Your task to perform on an android device: turn off smart reply in the gmail app Image 0: 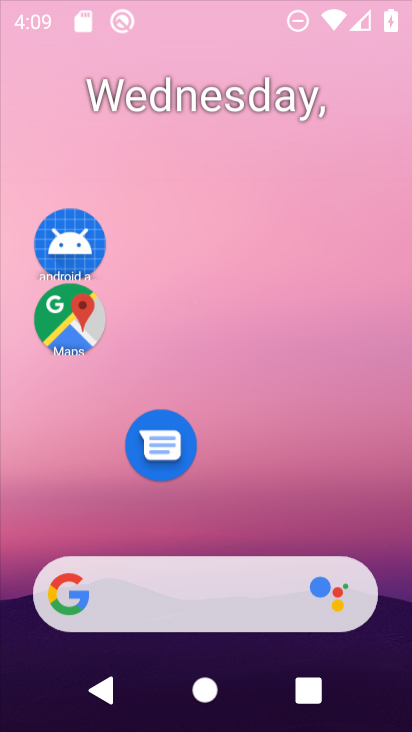
Step 0: click (256, 92)
Your task to perform on an android device: turn off smart reply in the gmail app Image 1: 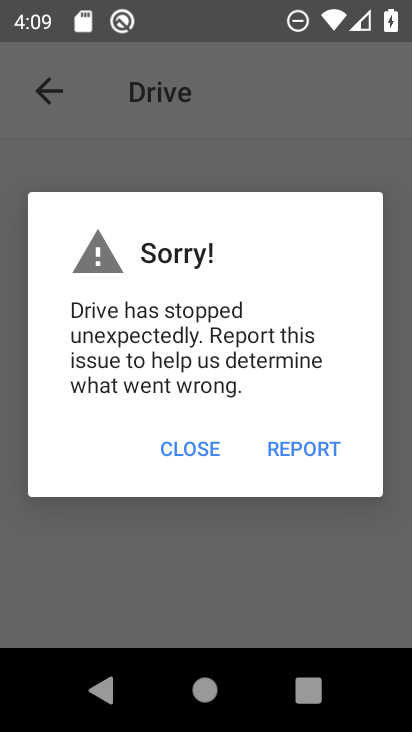
Step 1: drag from (257, 451) to (296, 258)
Your task to perform on an android device: turn off smart reply in the gmail app Image 2: 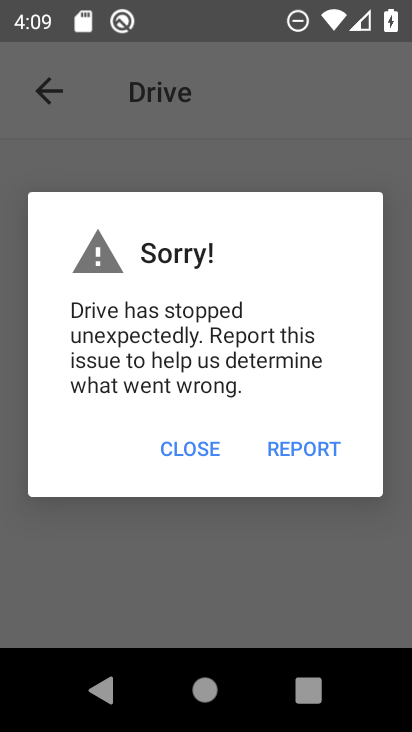
Step 2: press home button
Your task to perform on an android device: turn off smart reply in the gmail app Image 3: 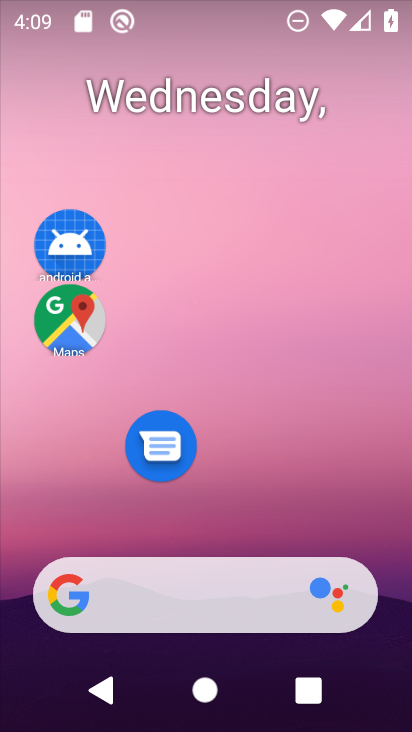
Step 3: drag from (307, 505) to (284, 128)
Your task to perform on an android device: turn off smart reply in the gmail app Image 4: 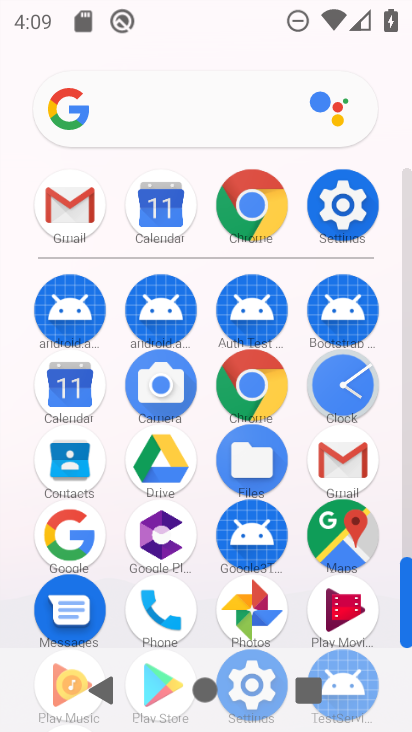
Step 4: click (83, 201)
Your task to perform on an android device: turn off smart reply in the gmail app Image 5: 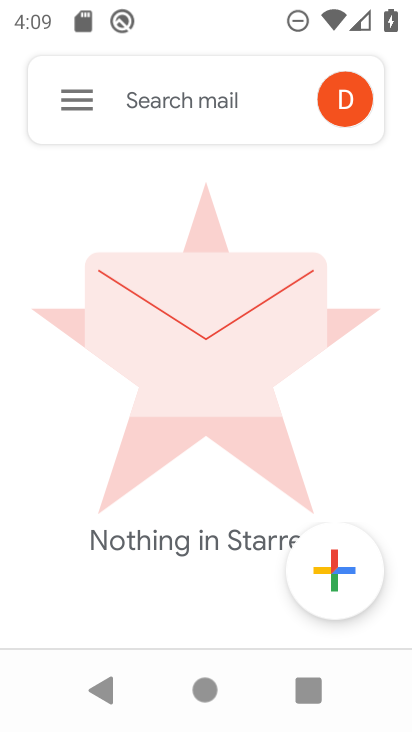
Step 5: click (78, 88)
Your task to perform on an android device: turn off smart reply in the gmail app Image 6: 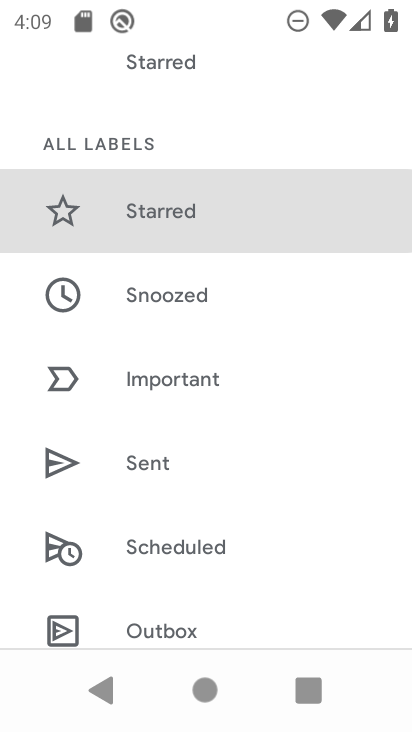
Step 6: drag from (273, 595) to (284, 434)
Your task to perform on an android device: turn off smart reply in the gmail app Image 7: 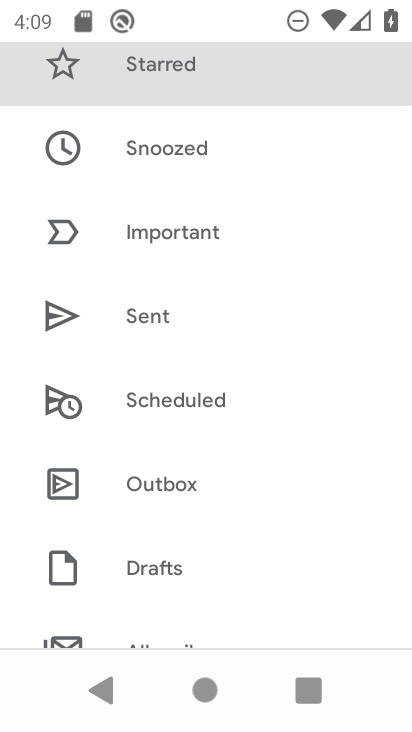
Step 7: drag from (211, 638) to (219, 282)
Your task to perform on an android device: turn off smart reply in the gmail app Image 8: 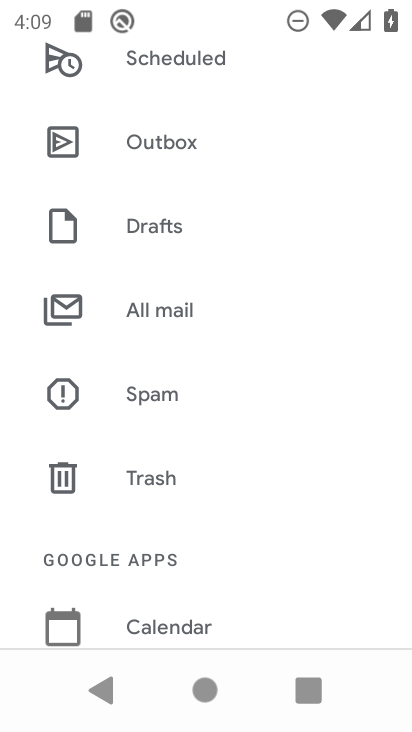
Step 8: drag from (206, 540) to (258, 247)
Your task to perform on an android device: turn off smart reply in the gmail app Image 9: 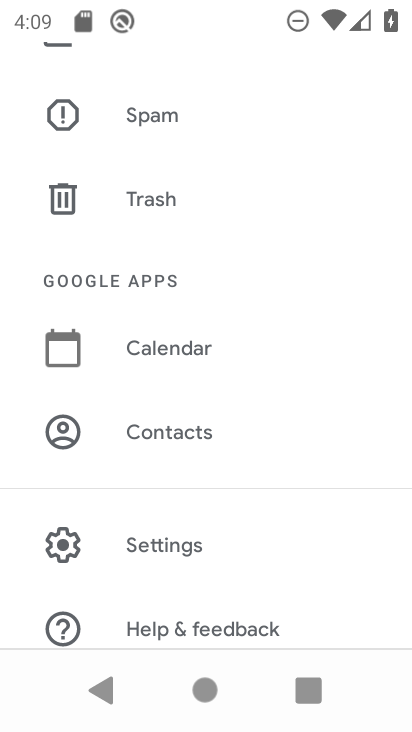
Step 9: click (211, 516)
Your task to perform on an android device: turn off smart reply in the gmail app Image 10: 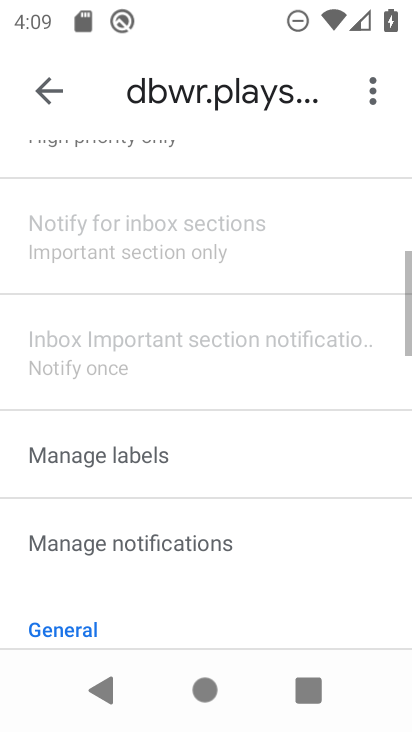
Step 10: drag from (211, 516) to (240, 149)
Your task to perform on an android device: turn off smart reply in the gmail app Image 11: 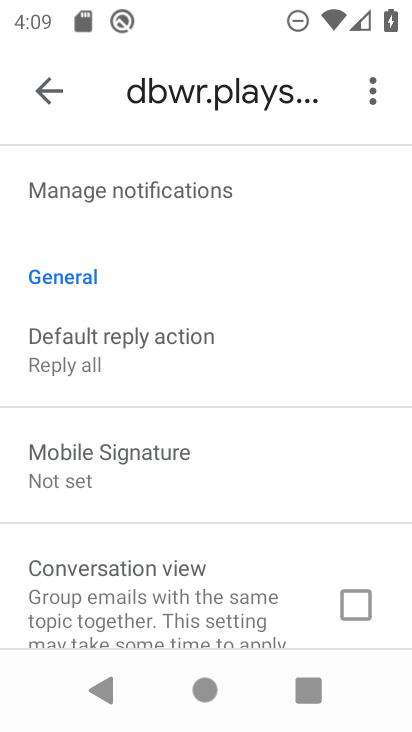
Step 11: drag from (216, 456) to (226, 229)
Your task to perform on an android device: turn off smart reply in the gmail app Image 12: 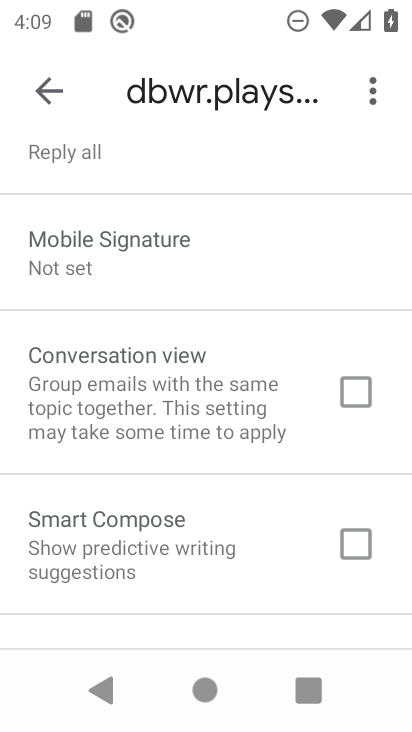
Step 12: drag from (206, 537) to (210, 378)
Your task to perform on an android device: turn off smart reply in the gmail app Image 13: 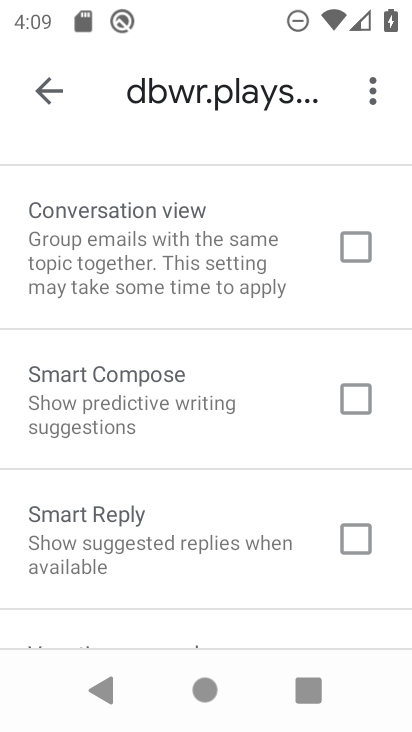
Step 13: click (335, 539)
Your task to perform on an android device: turn off smart reply in the gmail app Image 14: 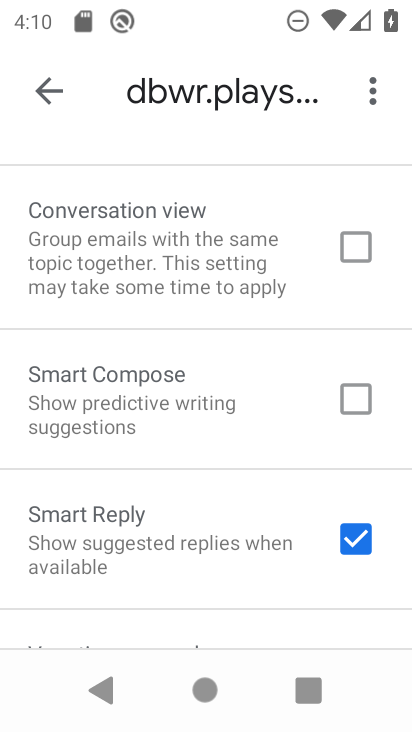
Step 14: click (372, 538)
Your task to perform on an android device: turn off smart reply in the gmail app Image 15: 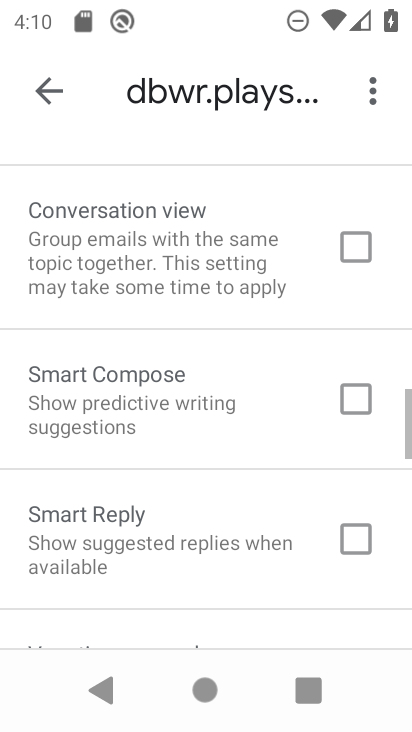
Step 15: task complete